Your task to perform on an android device: check android version Image 0: 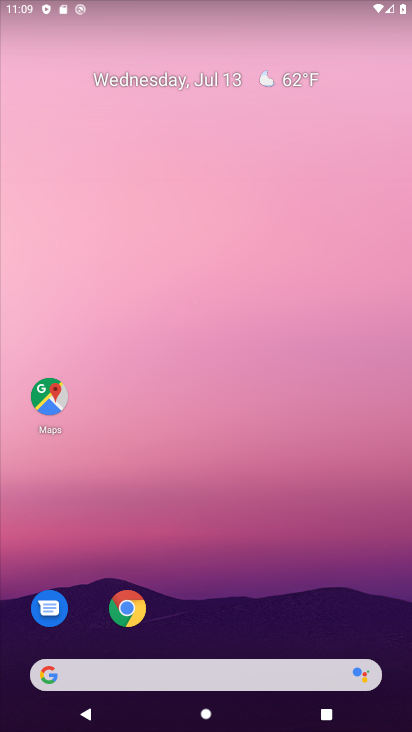
Step 0: drag from (235, 723) to (233, 121)
Your task to perform on an android device: check android version Image 1: 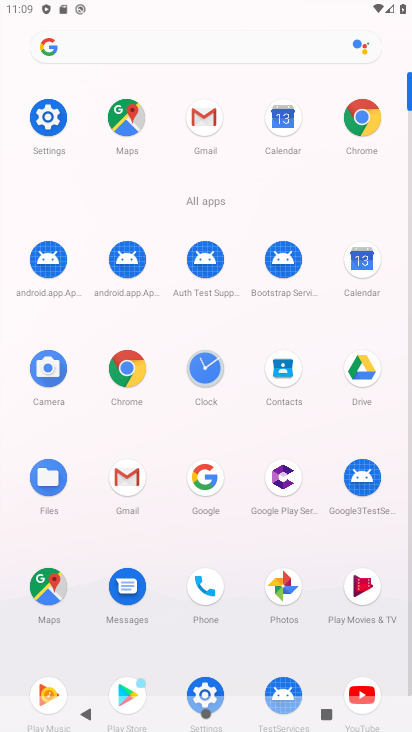
Step 1: click (38, 121)
Your task to perform on an android device: check android version Image 2: 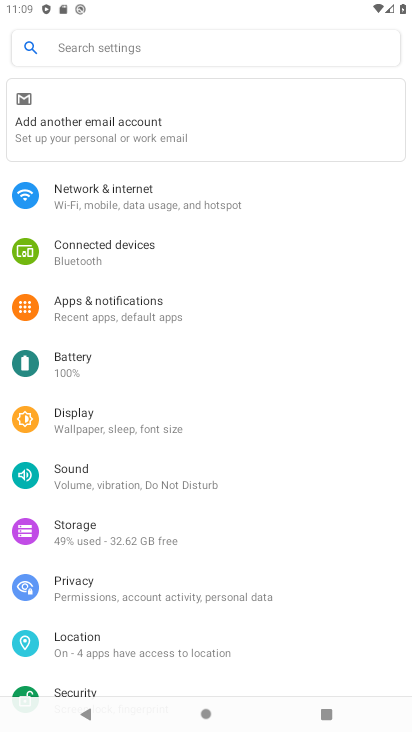
Step 2: drag from (200, 667) to (193, 296)
Your task to perform on an android device: check android version Image 3: 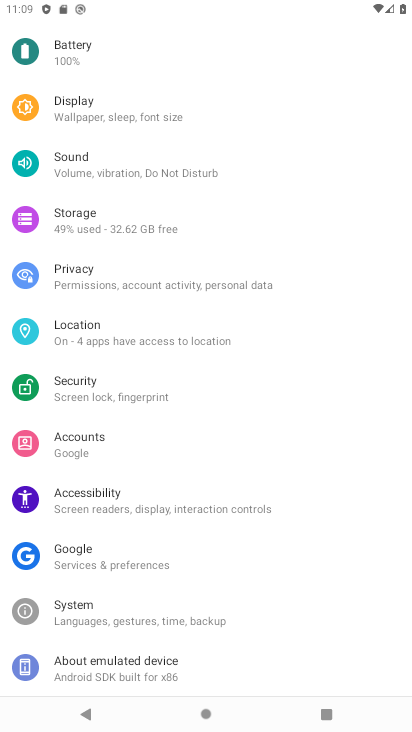
Step 3: drag from (185, 636) to (196, 299)
Your task to perform on an android device: check android version Image 4: 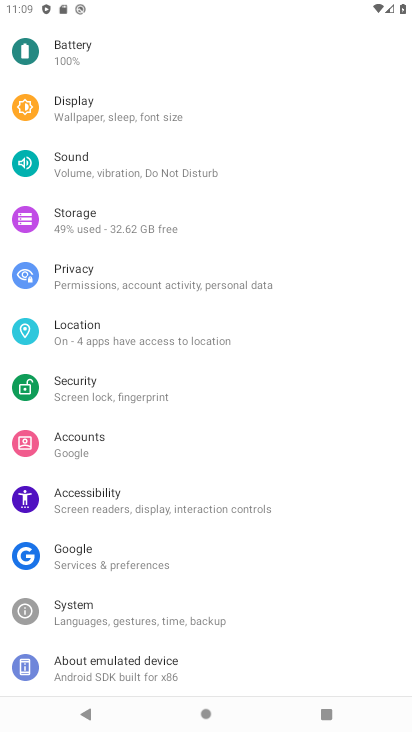
Step 4: click (88, 664)
Your task to perform on an android device: check android version Image 5: 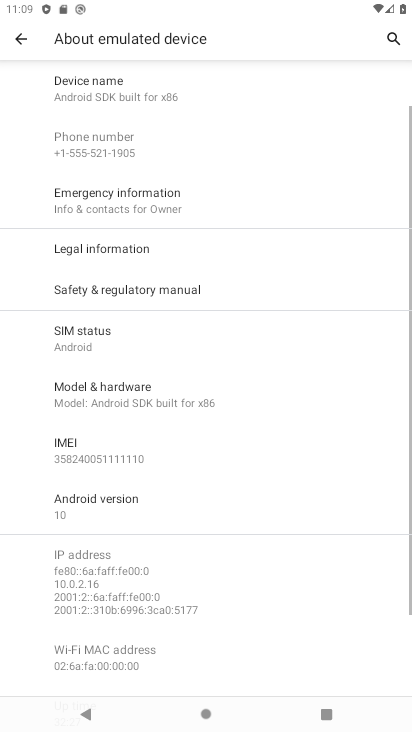
Step 5: click (104, 497)
Your task to perform on an android device: check android version Image 6: 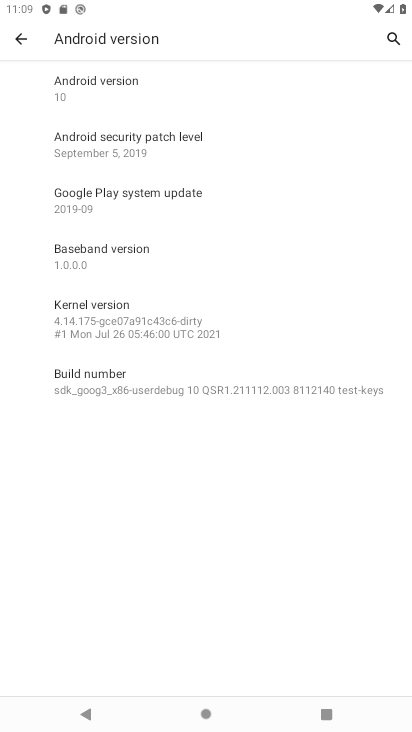
Step 6: task complete